Your task to perform on an android device: Set an alarm for 7am Image 0: 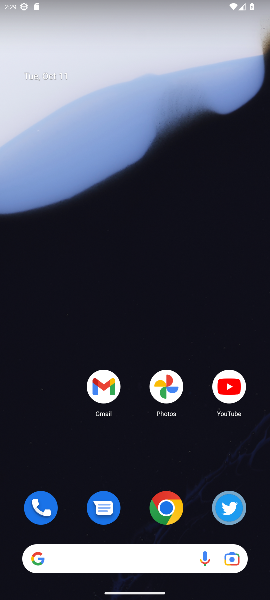
Step 0: drag from (210, 448) to (191, 39)
Your task to perform on an android device: Set an alarm for 7am Image 1: 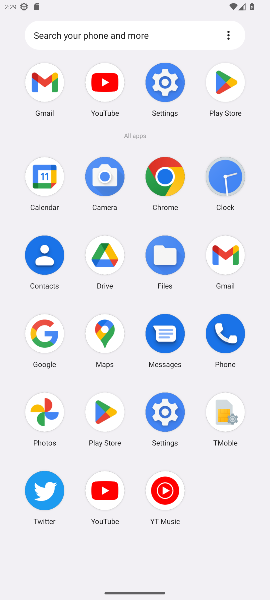
Step 1: click (225, 173)
Your task to perform on an android device: Set an alarm for 7am Image 2: 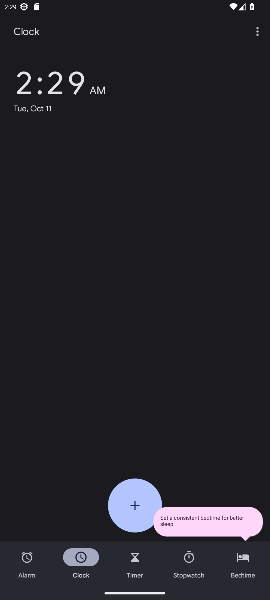
Step 2: click (20, 563)
Your task to perform on an android device: Set an alarm for 7am Image 3: 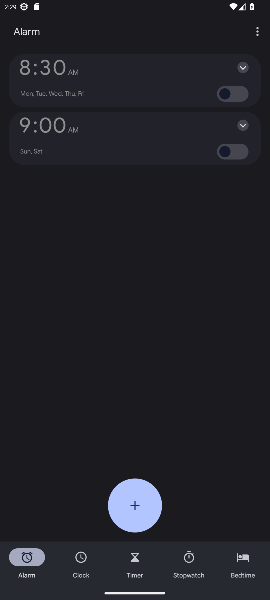
Step 3: click (138, 510)
Your task to perform on an android device: Set an alarm for 7am Image 4: 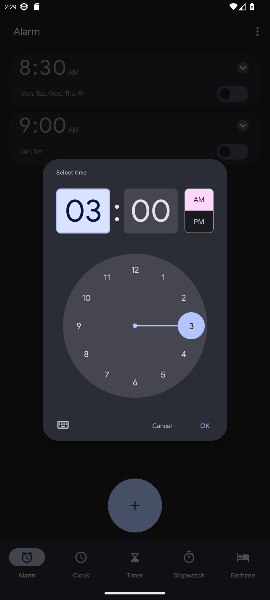
Step 4: click (108, 376)
Your task to perform on an android device: Set an alarm for 7am Image 5: 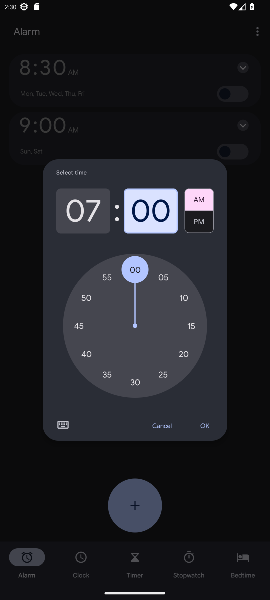
Step 5: click (206, 431)
Your task to perform on an android device: Set an alarm for 7am Image 6: 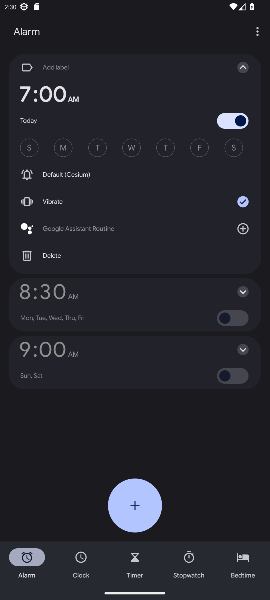
Step 6: task complete